Your task to perform on an android device: Clear the cart on walmart. Add logitech g pro to the cart on walmart Image 0: 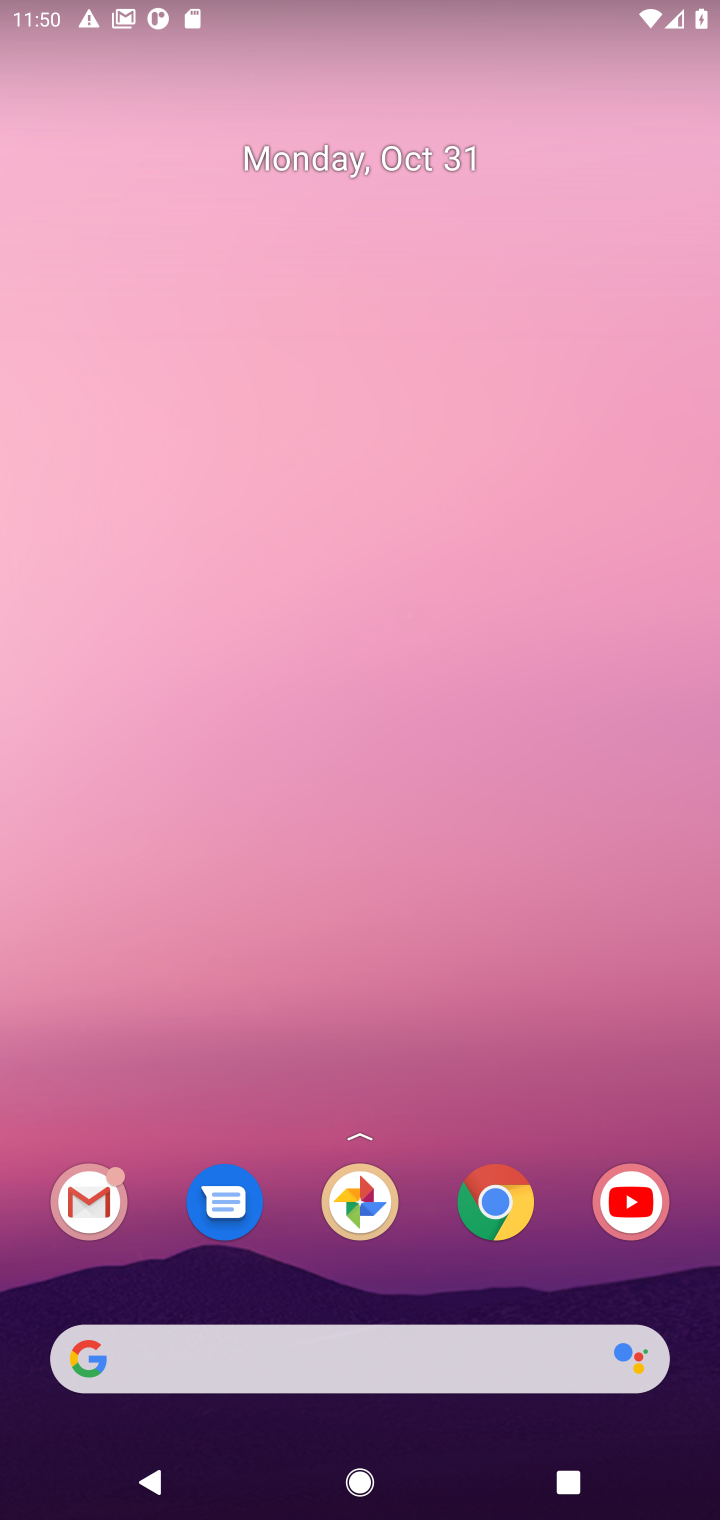
Step 0: click (478, 1208)
Your task to perform on an android device: Clear the cart on walmart. Add logitech g pro to the cart on walmart Image 1: 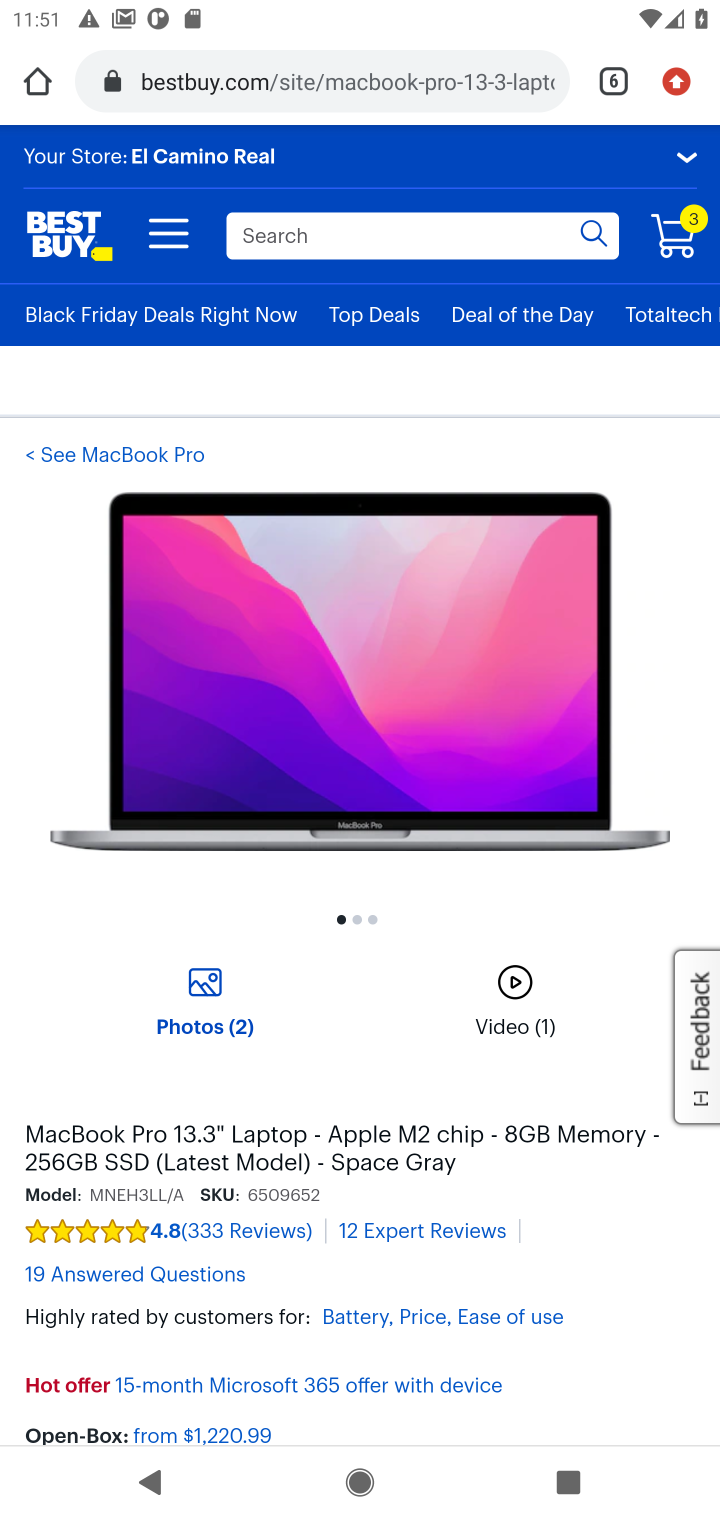
Step 1: click (615, 85)
Your task to perform on an android device: Clear the cart on walmart. Add logitech g pro to the cart on walmart Image 2: 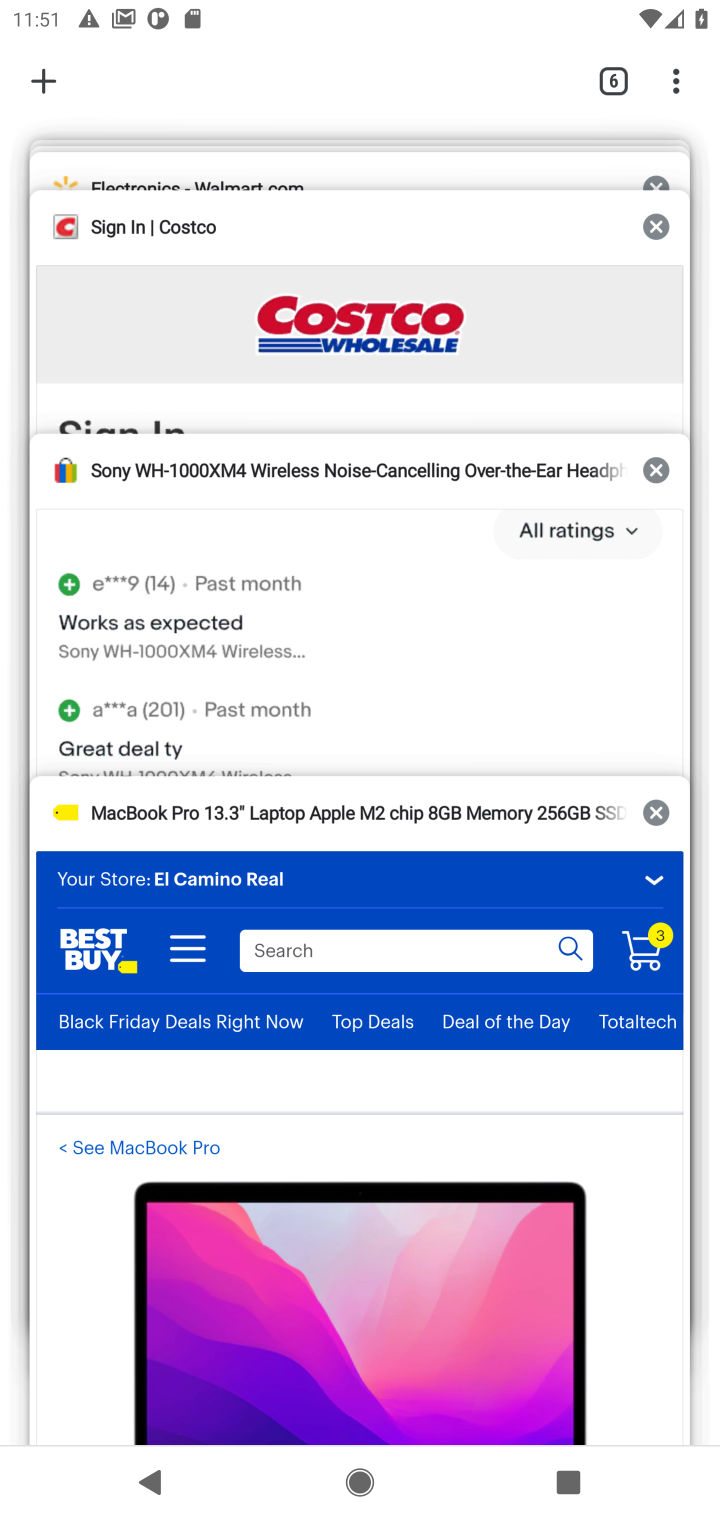
Step 2: drag from (383, 292) to (339, 672)
Your task to perform on an android device: Clear the cart on walmart. Add logitech g pro to the cart on walmart Image 3: 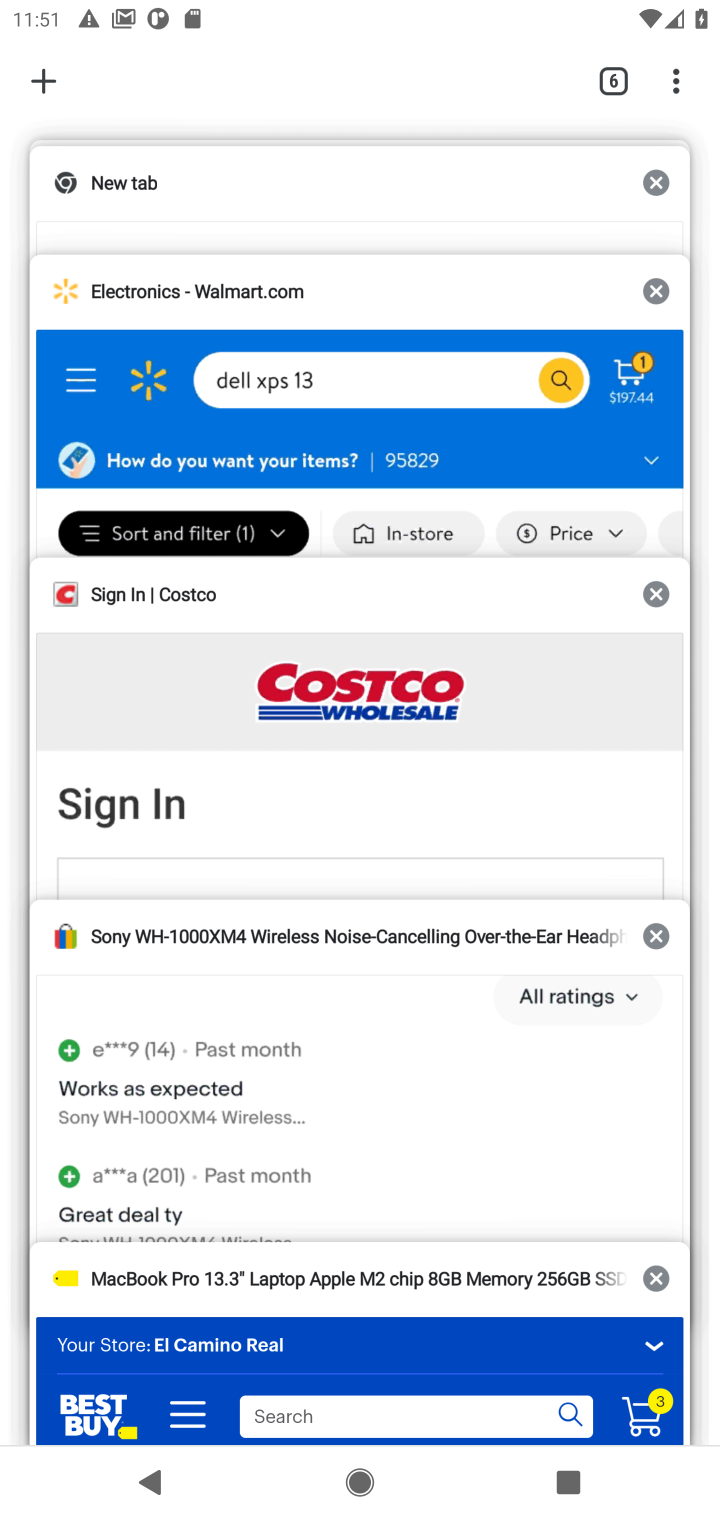
Step 3: click (332, 375)
Your task to perform on an android device: Clear the cart on walmart. Add logitech g pro to the cart on walmart Image 4: 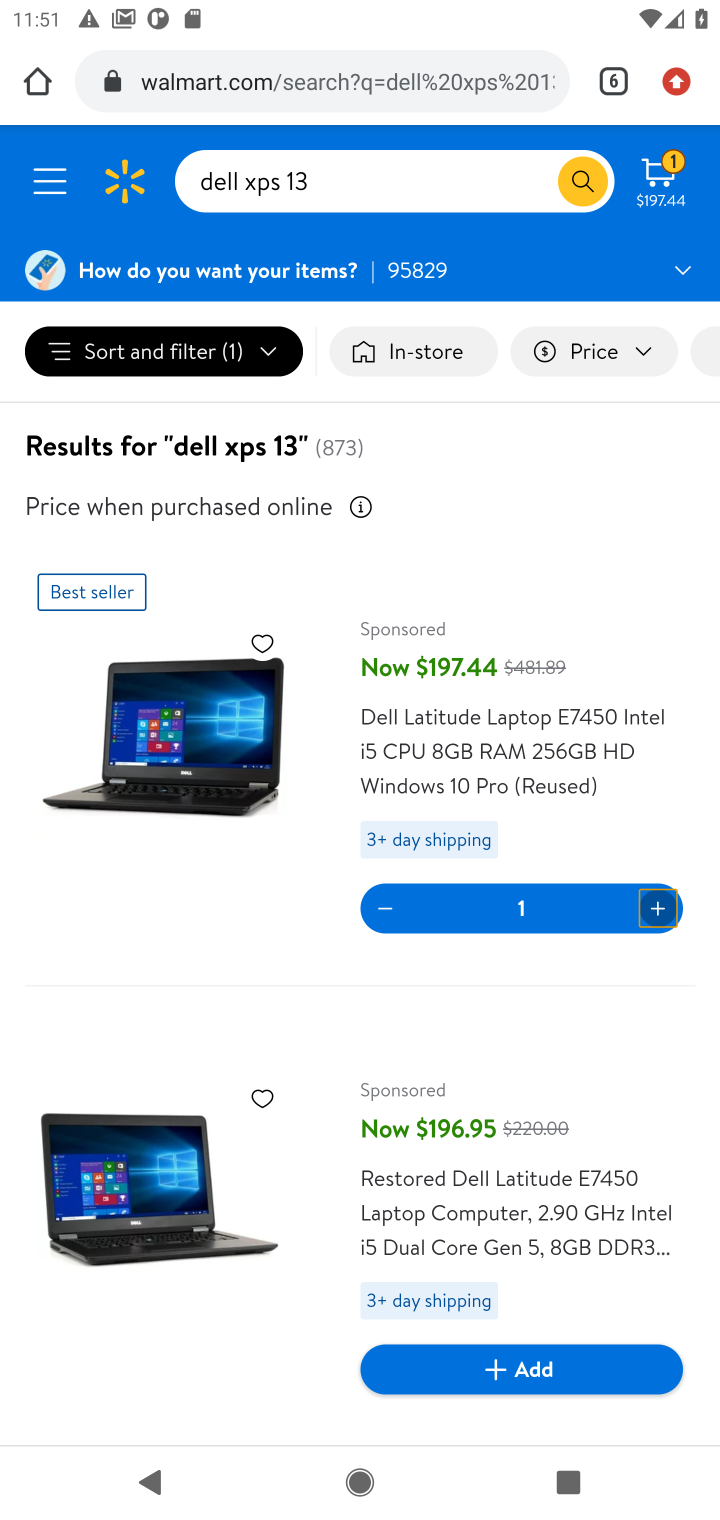
Step 4: click (494, 181)
Your task to perform on an android device: Clear the cart on walmart. Add logitech g pro to the cart on walmart Image 5: 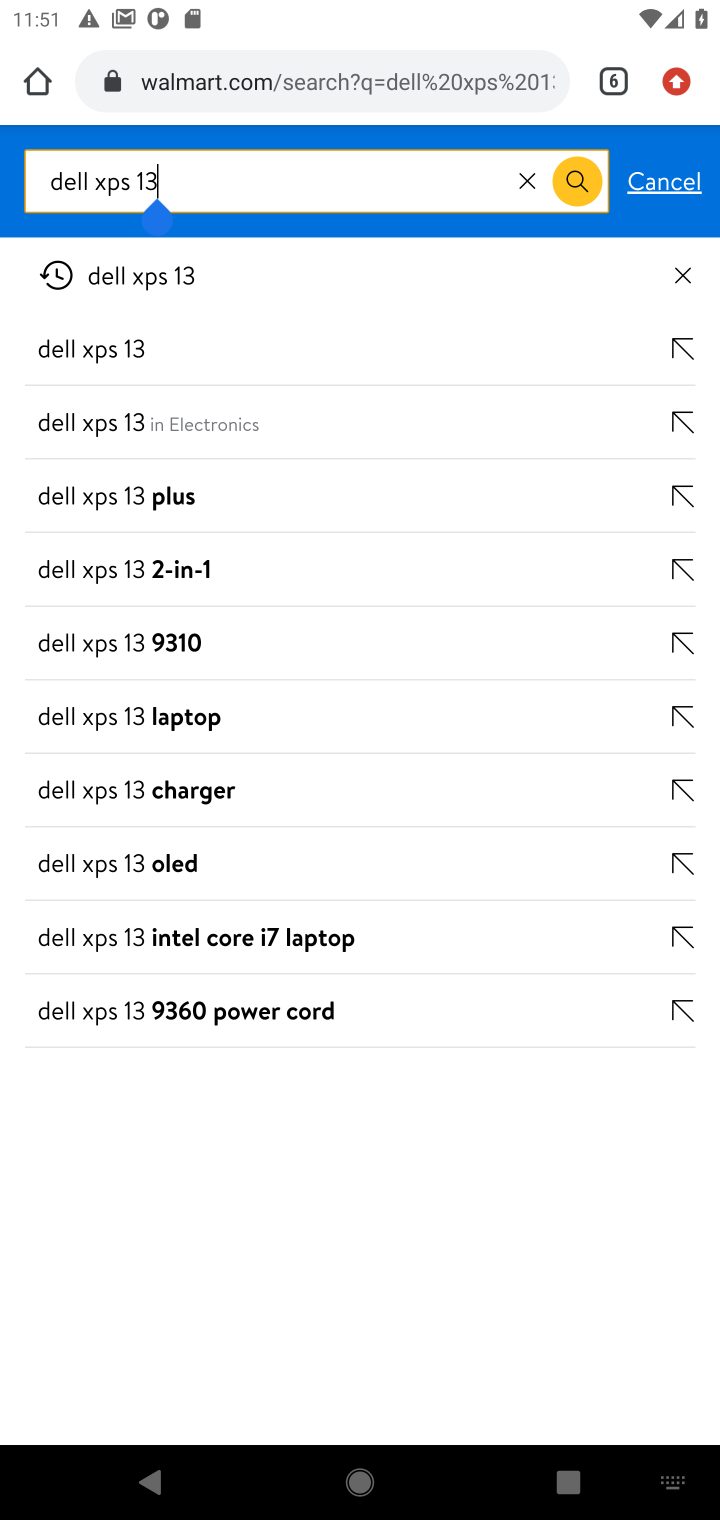
Step 5: click (526, 180)
Your task to perform on an android device: Clear the cart on walmart. Add logitech g pro to the cart on walmart Image 6: 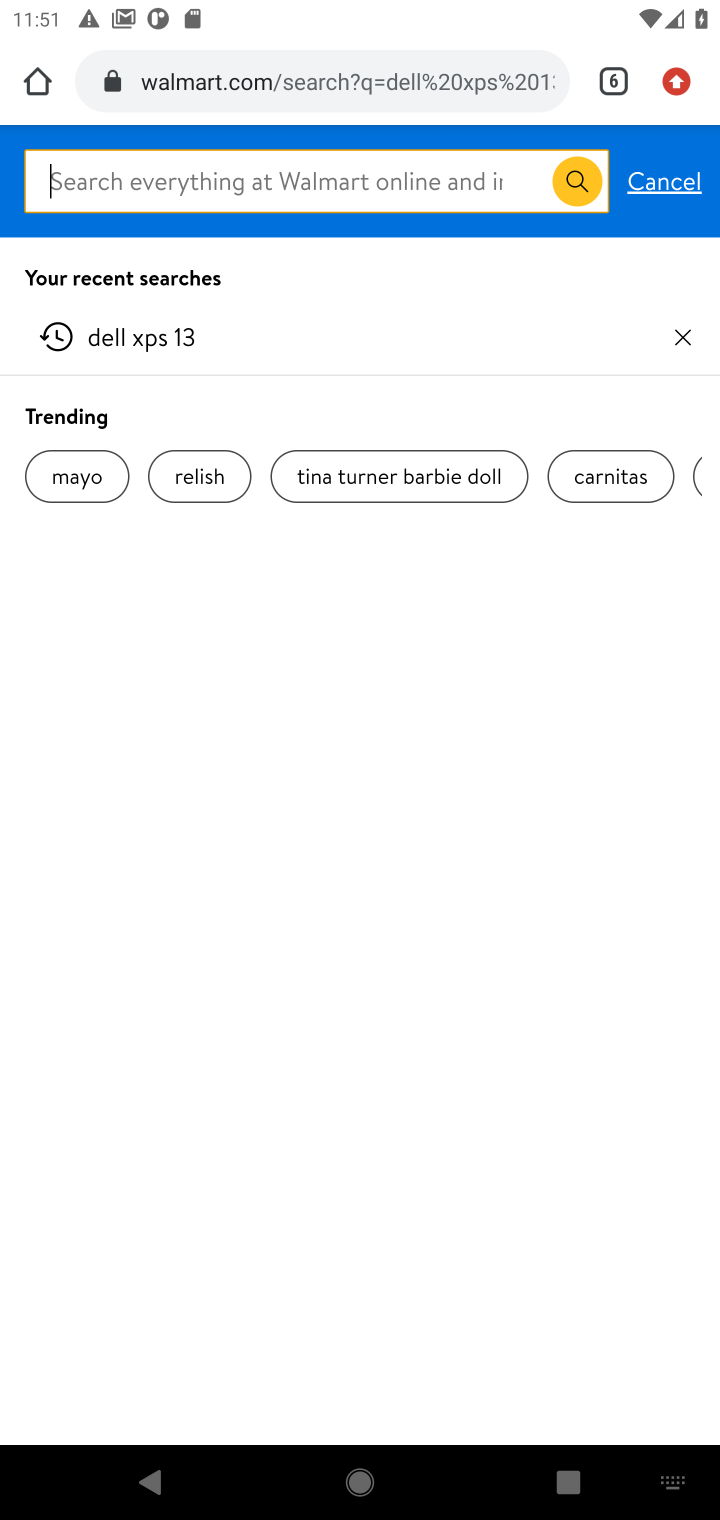
Step 6: type "logitech g pro "
Your task to perform on an android device: Clear the cart on walmart. Add logitech g pro to the cart on walmart Image 7: 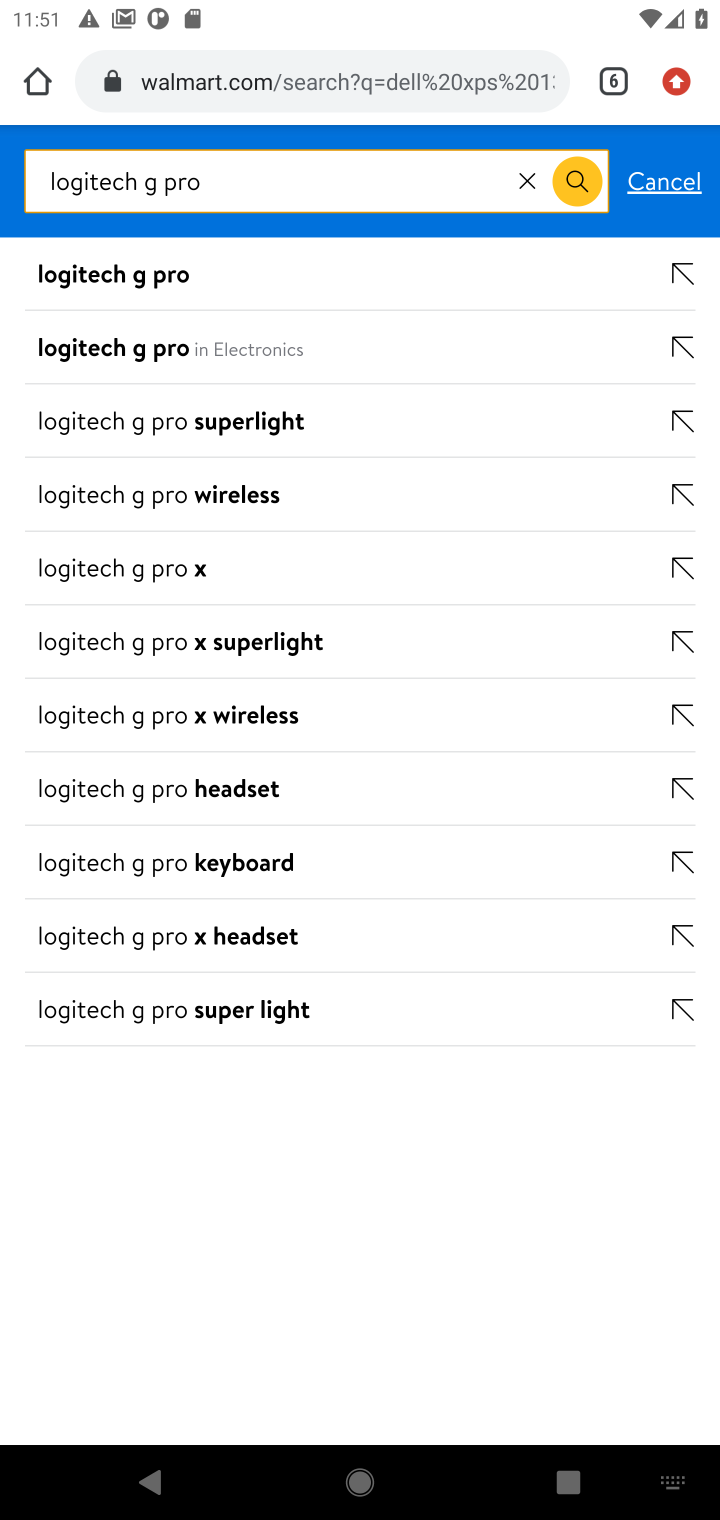
Step 7: click (143, 269)
Your task to perform on an android device: Clear the cart on walmart. Add logitech g pro to the cart on walmart Image 8: 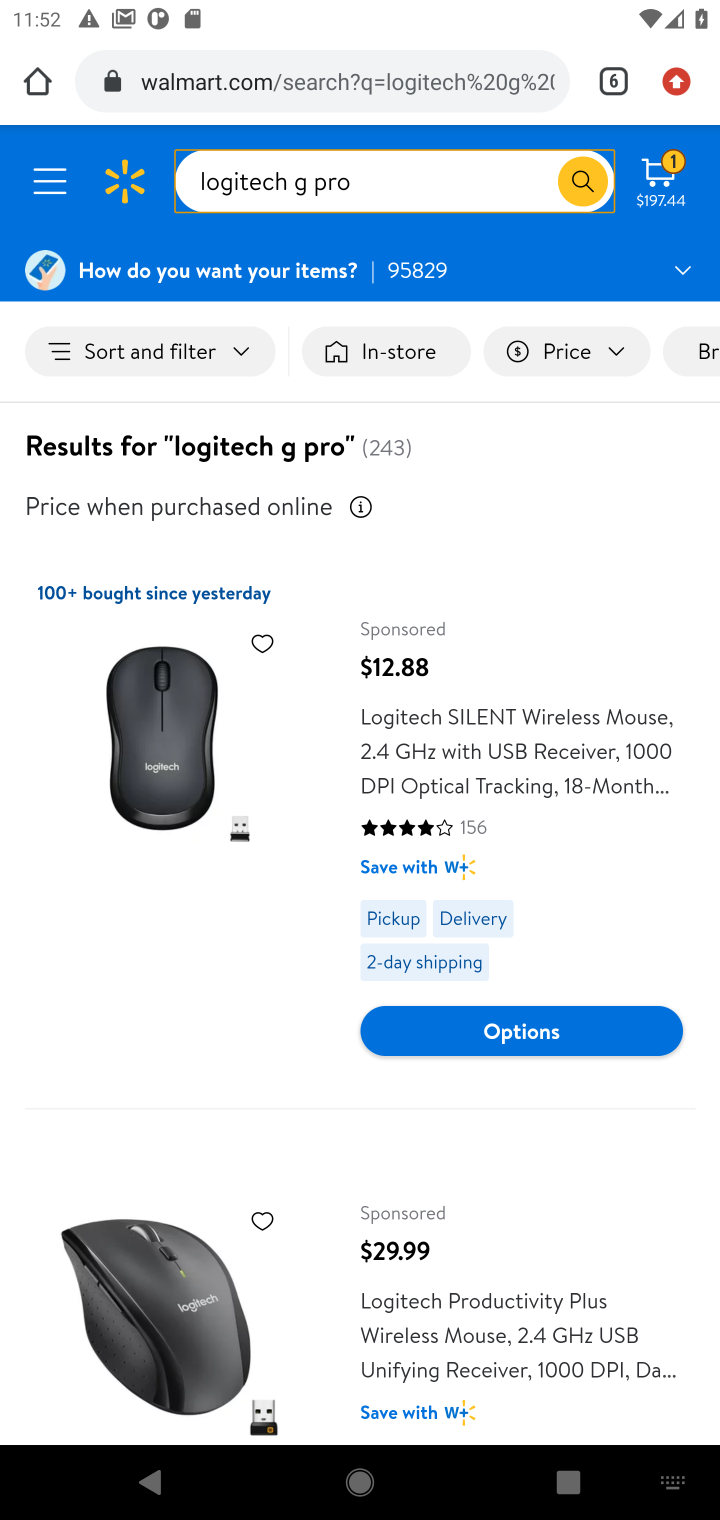
Step 8: click (510, 773)
Your task to perform on an android device: Clear the cart on walmart. Add logitech g pro to the cart on walmart Image 9: 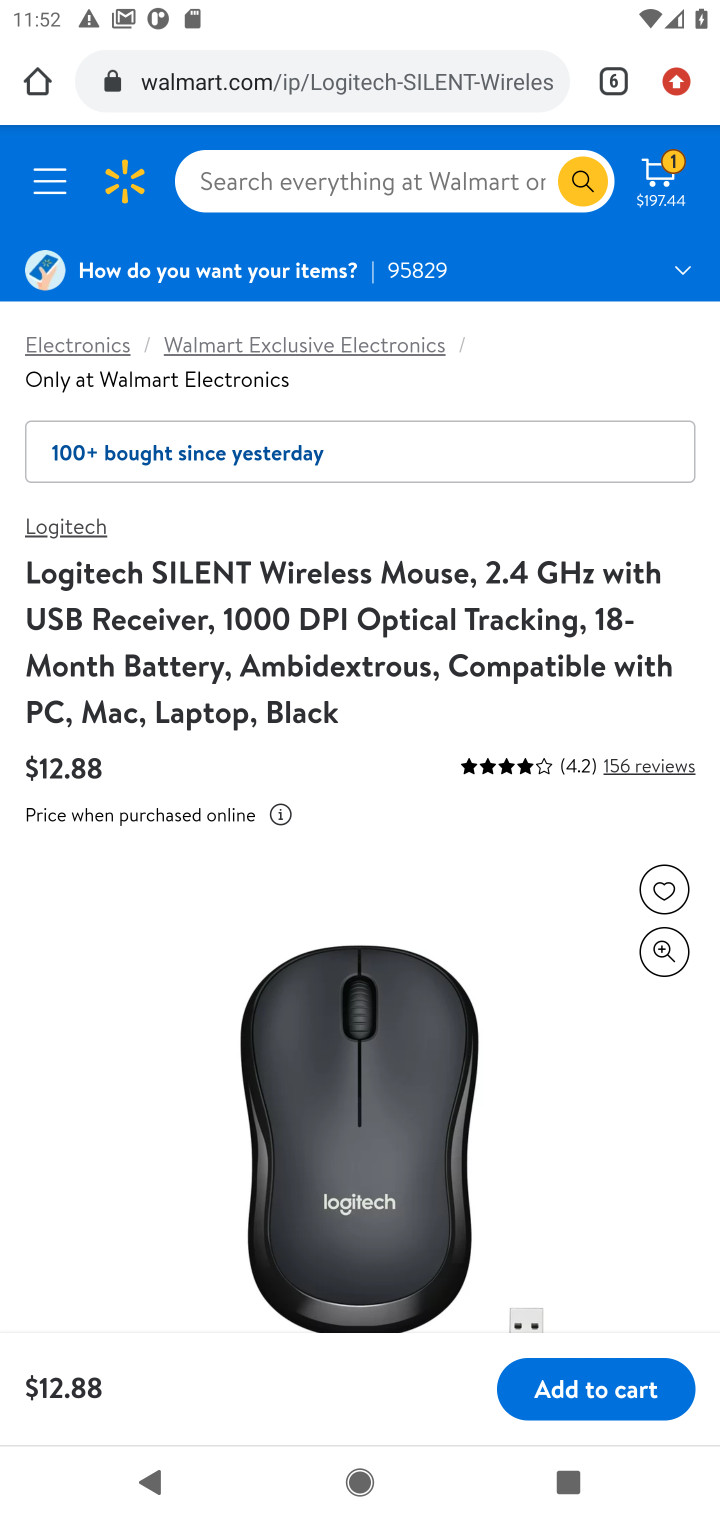
Step 9: click (560, 1373)
Your task to perform on an android device: Clear the cart on walmart. Add logitech g pro to the cart on walmart Image 10: 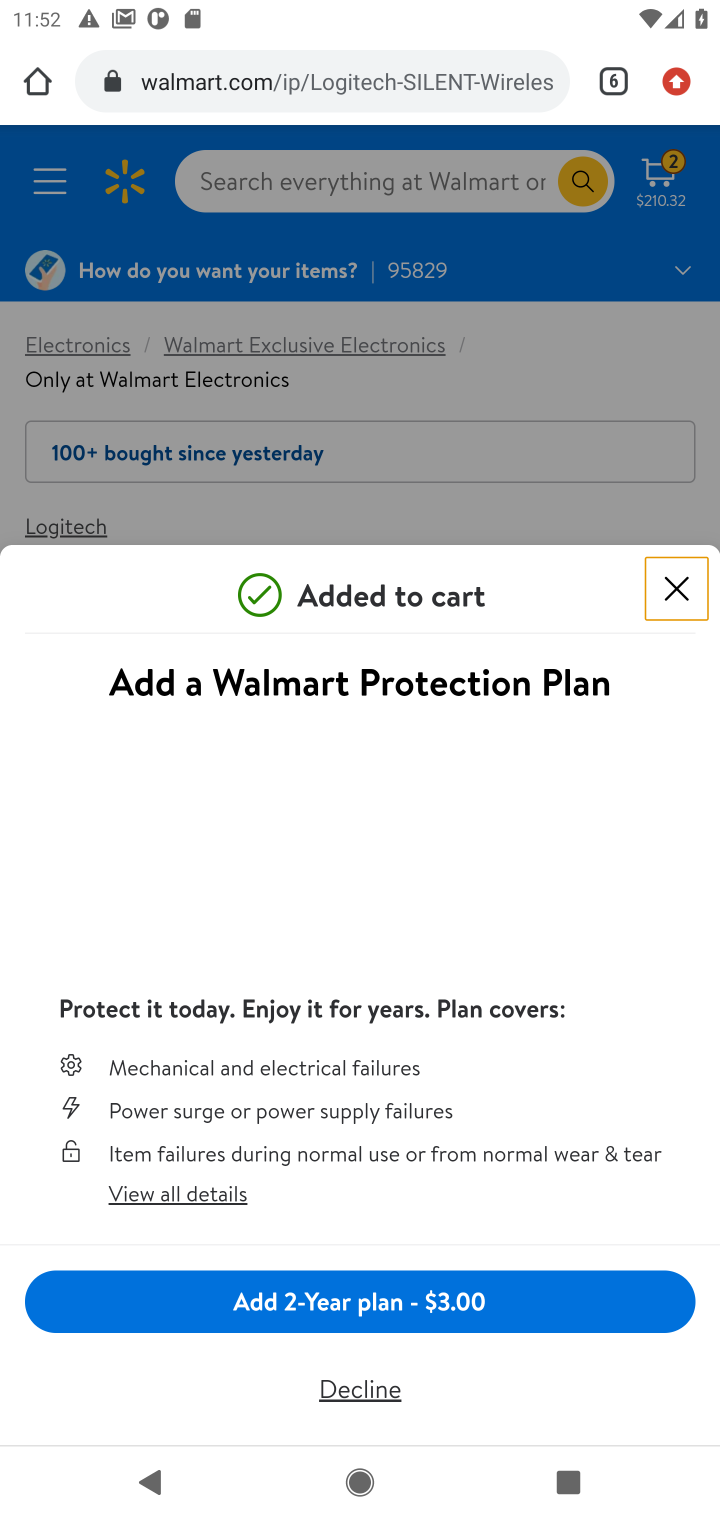
Step 10: task complete